Your task to perform on an android device: Go to Maps Image 0: 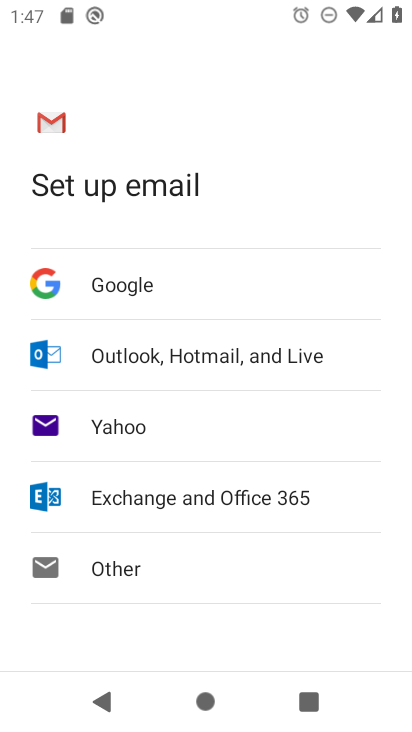
Step 0: press home button
Your task to perform on an android device: Go to Maps Image 1: 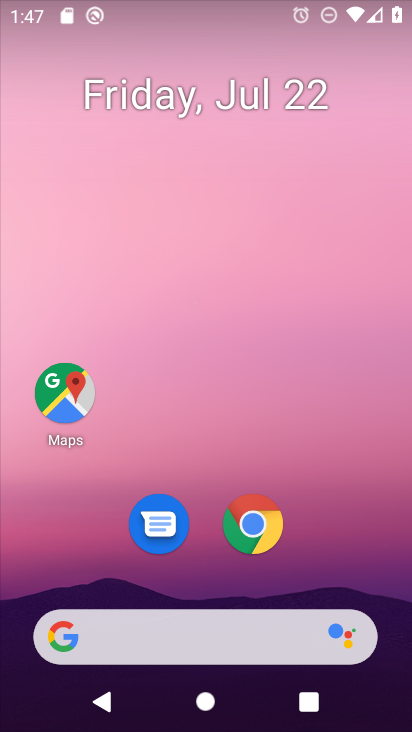
Step 1: click (48, 401)
Your task to perform on an android device: Go to Maps Image 2: 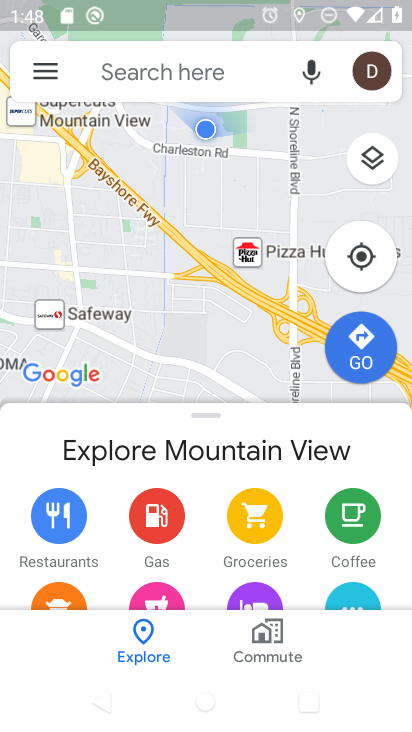
Step 2: task complete